Your task to perform on an android device: uninstall "Microsoft Outlook" Image 0: 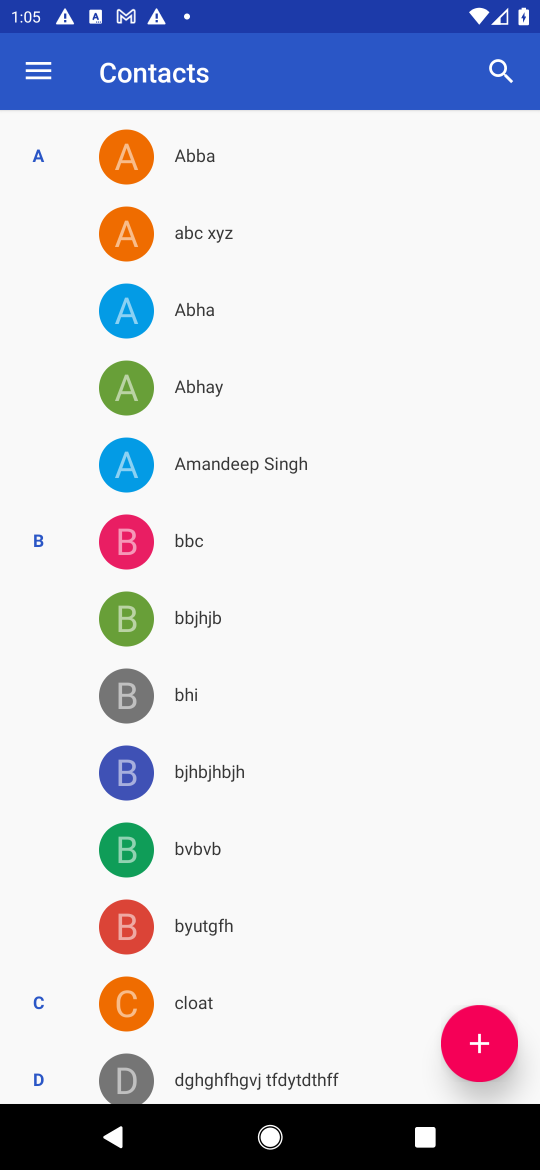
Step 0: press home button
Your task to perform on an android device: uninstall "Microsoft Outlook" Image 1: 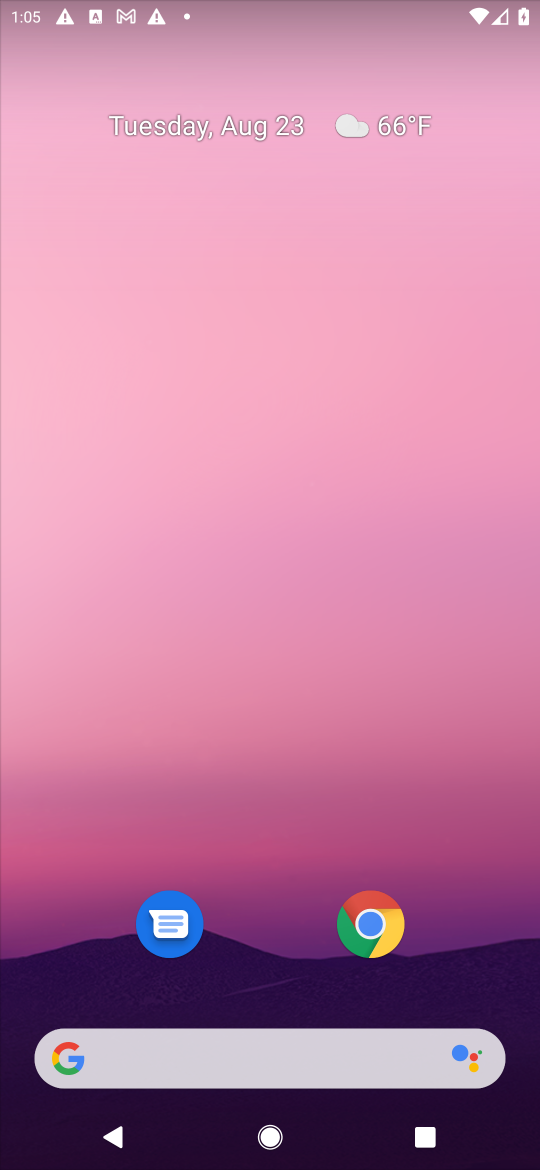
Step 1: drag from (455, 944) to (450, 176)
Your task to perform on an android device: uninstall "Microsoft Outlook" Image 2: 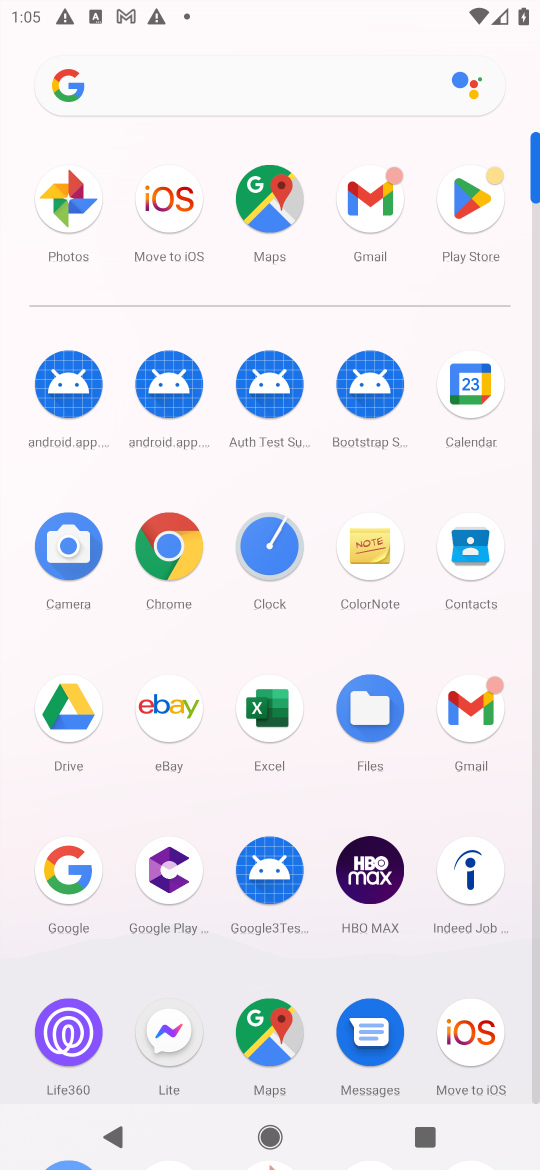
Step 2: click (475, 197)
Your task to perform on an android device: uninstall "Microsoft Outlook" Image 3: 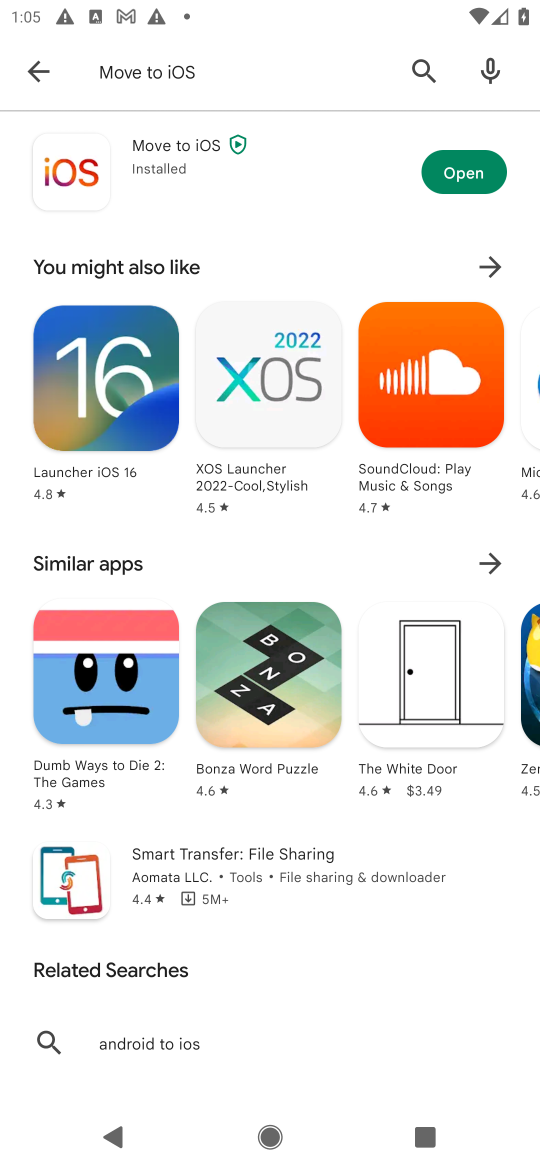
Step 3: press back button
Your task to perform on an android device: uninstall "Microsoft Outlook" Image 4: 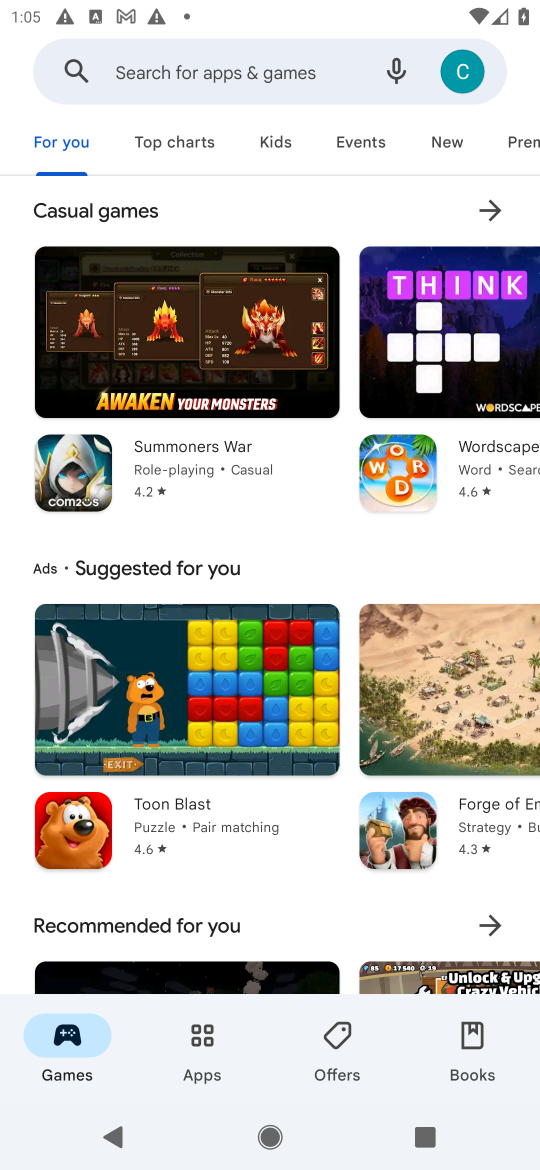
Step 4: press enter
Your task to perform on an android device: uninstall "Microsoft Outlook" Image 5: 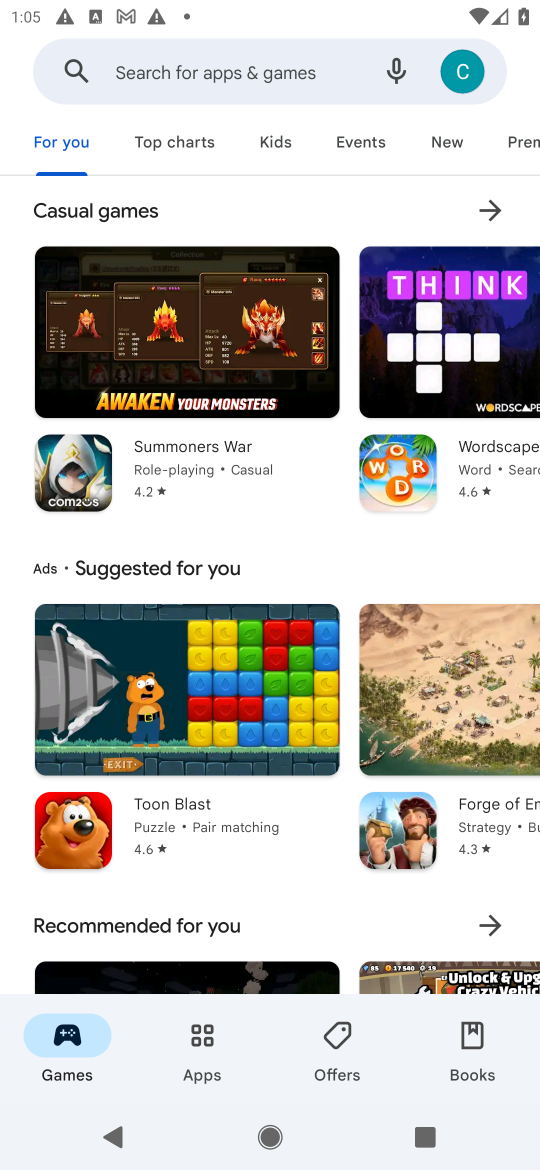
Step 5: type "Microsoft Outlook"
Your task to perform on an android device: uninstall "Microsoft Outlook" Image 6: 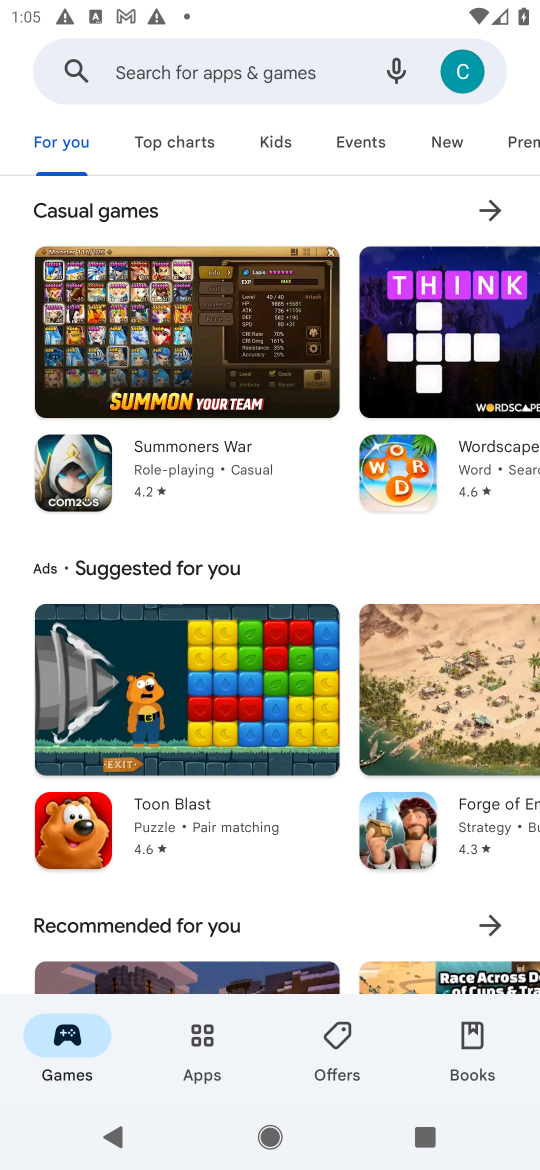
Step 6: click (200, 61)
Your task to perform on an android device: uninstall "Microsoft Outlook" Image 7: 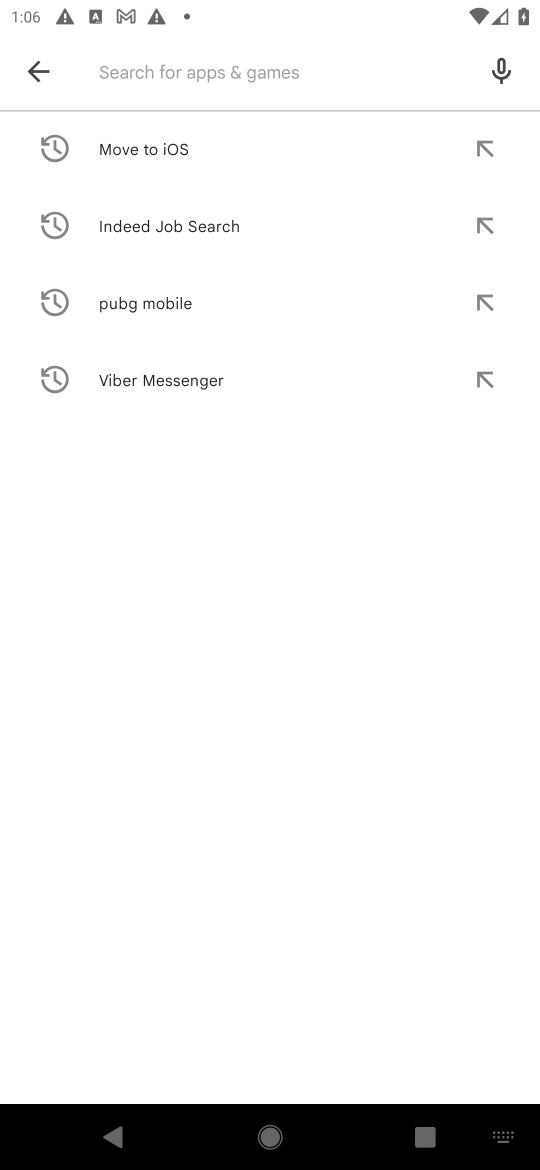
Step 7: press enter
Your task to perform on an android device: uninstall "Microsoft Outlook" Image 8: 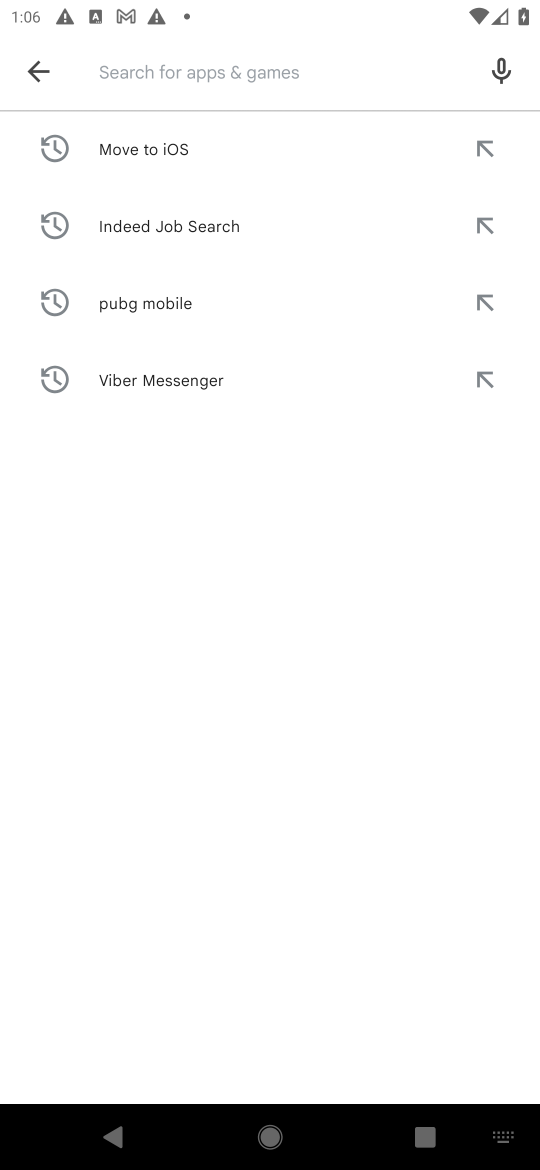
Step 8: type "Microsoft Outlook"
Your task to perform on an android device: uninstall "Microsoft Outlook" Image 9: 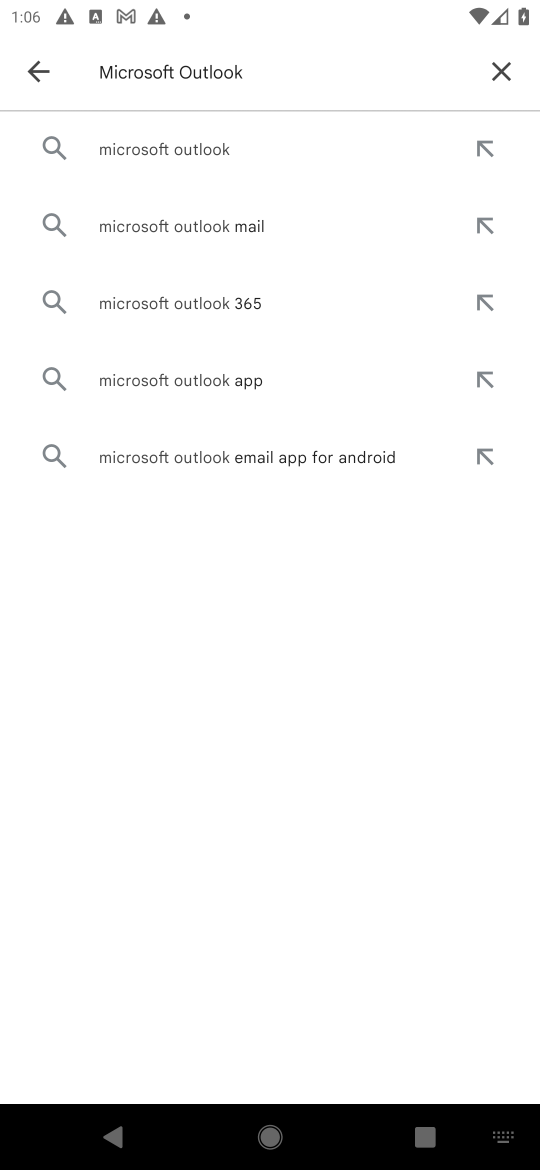
Step 9: click (236, 139)
Your task to perform on an android device: uninstall "Microsoft Outlook" Image 10: 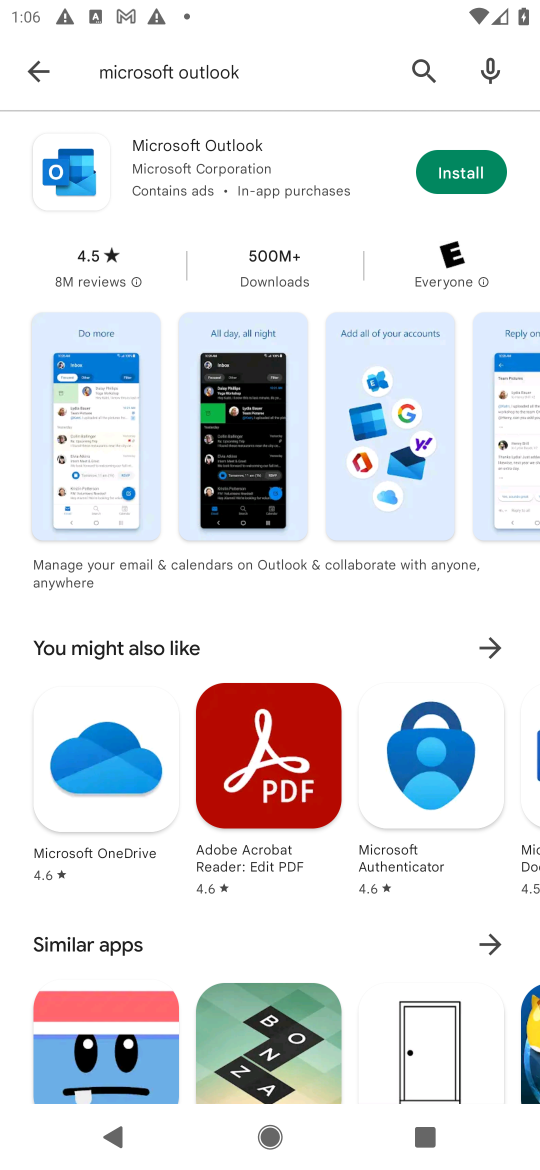
Step 10: task complete